Your task to perform on an android device: turn off notifications settings in the gmail app Image 0: 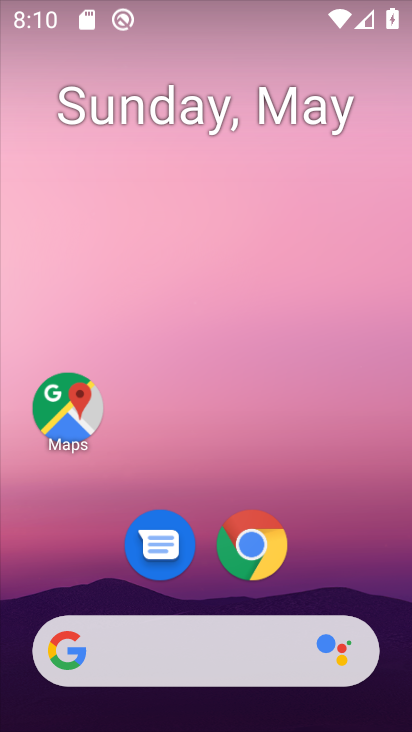
Step 0: drag from (387, 589) to (273, 43)
Your task to perform on an android device: turn off notifications settings in the gmail app Image 1: 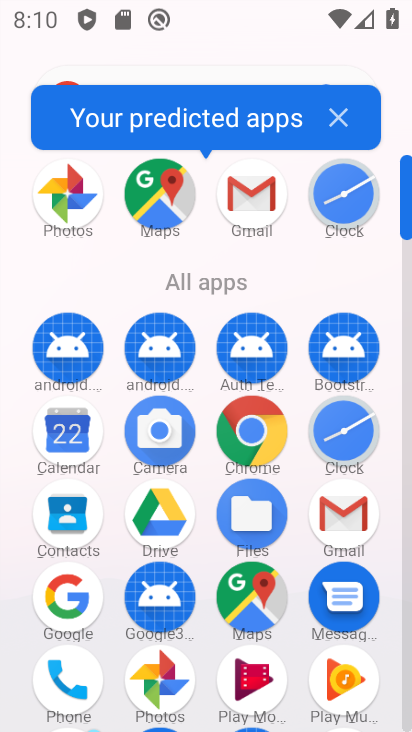
Step 1: click (268, 204)
Your task to perform on an android device: turn off notifications settings in the gmail app Image 2: 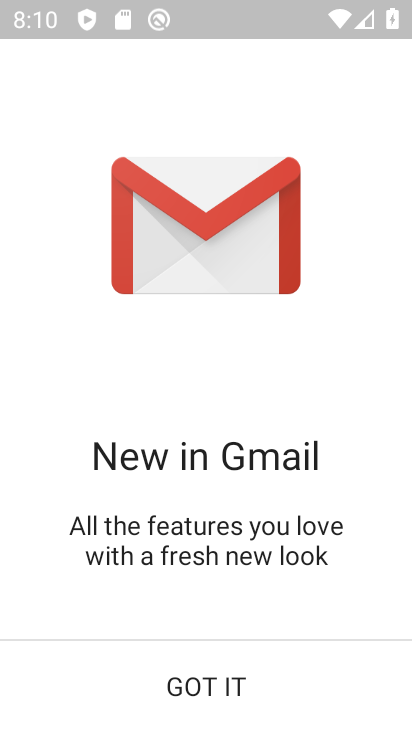
Step 2: click (238, 672)
Your task to perform on an android device: turn off notifications settings in the gmail app Image 3: 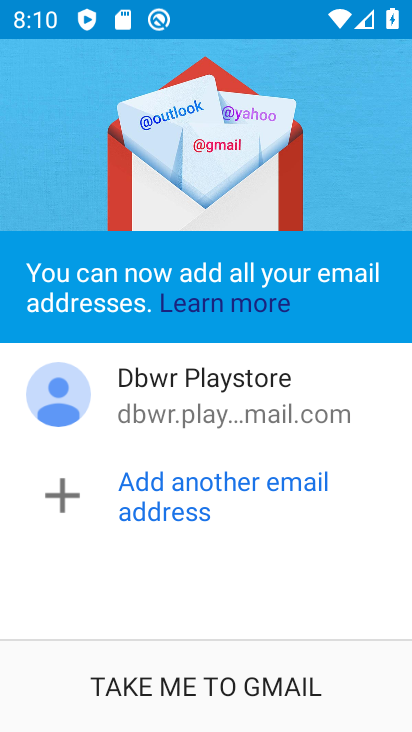
Step 3: click (238, 672)
Your task to perform on an android device: turn off notifications settings in the gmail app Image 4: 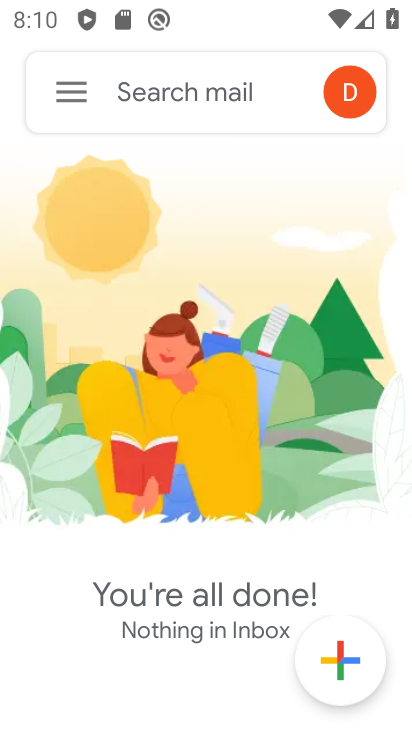
Step 4: click (84, 114)
Your task to perform on an android device: turn off notifications settings in the gmail app Image 5: 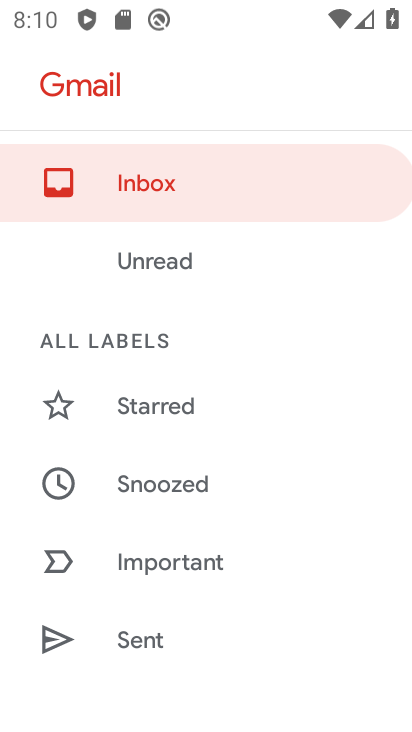
Step 5: drag from (306, 617) to (351, 163)
Your task to perform on an android device: turn off notifications settings in the gmail app Image 6: 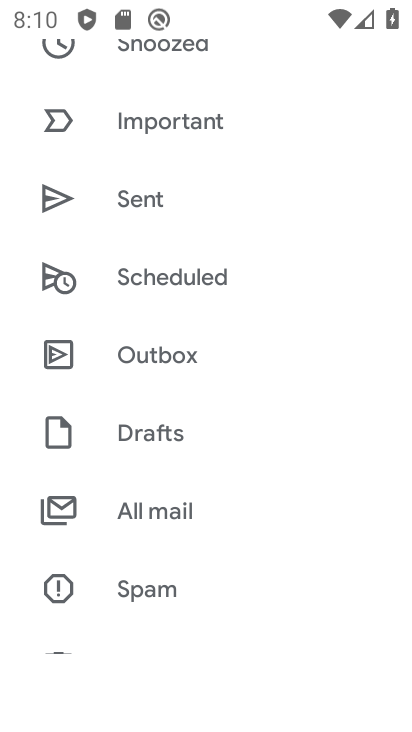
Step 6: drag from (163, 615) to (170, 74)
Your task to perform on an android device: turn off notifications settings in the gmail app Image 7: 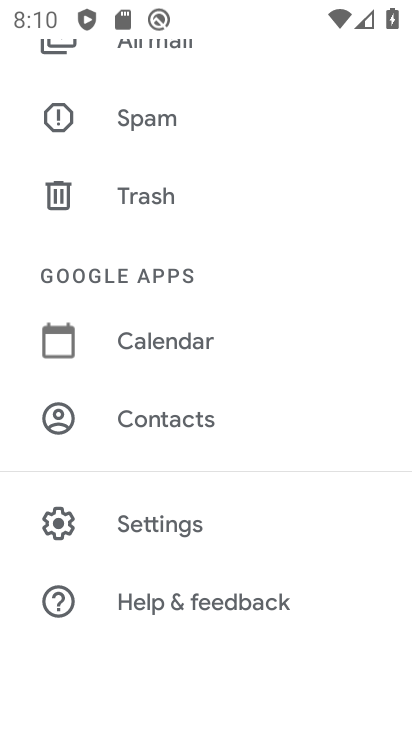
Step 7: click (128, 510)
Your task to perform on an android device: turn off notifications settings in the gmail app Image 8: 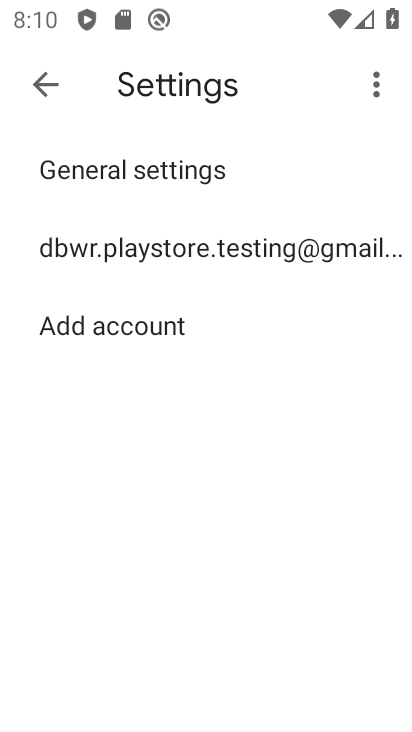
Step 8: click (232, 242)
Your task to perform on an android device: turn off notifications settings in the gmail app Image 9: 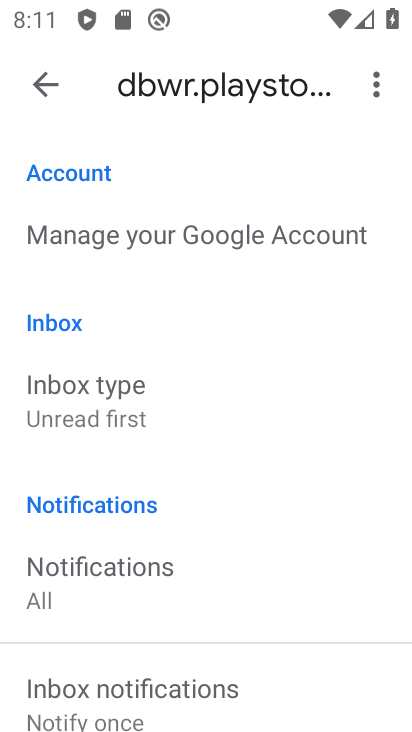
Step 9: drag from (146, 652) to (161, 103)
Your task to perform on an android device: turn off notifications settings in the gmail app Image 10: 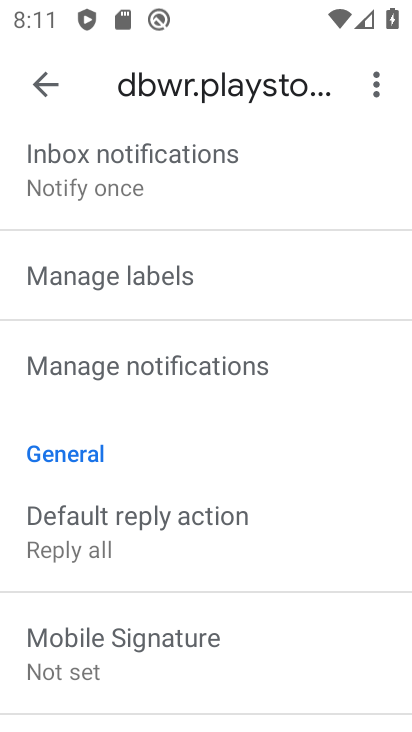
Step 10: click (127, 381)
Your task to perform on an android device: turn off notifications settings in the gmail app Image 11: 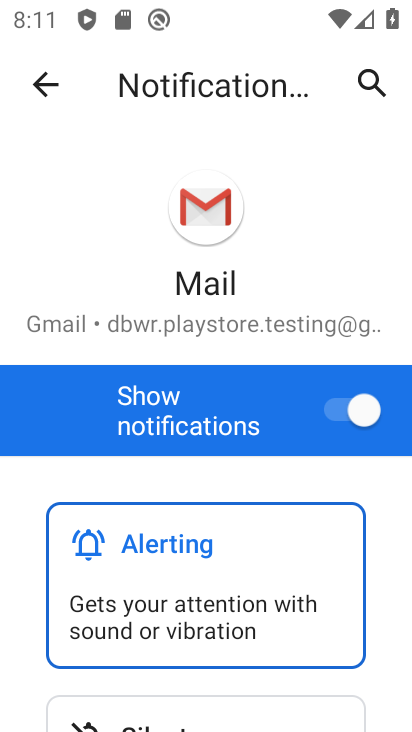
Step 11: drag from (363, 465) to (373, 174)
Your task to perform on an android device: turn off notifications settings in the gmail app Image 12: 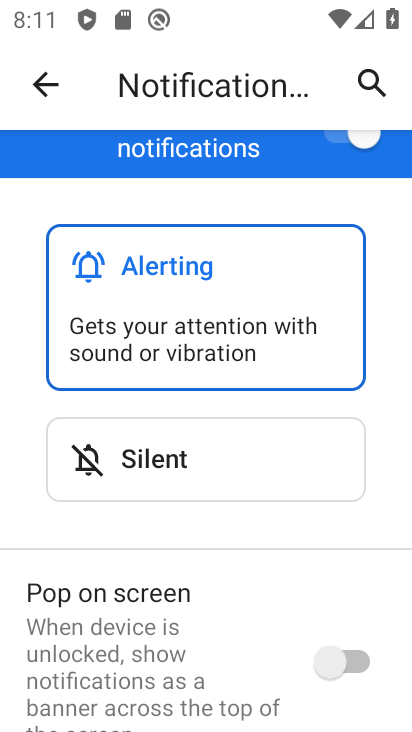
Step 12: click (347, 143)
Your task to perform on an android device: turn off notifications settings in the gmail app Image 13: 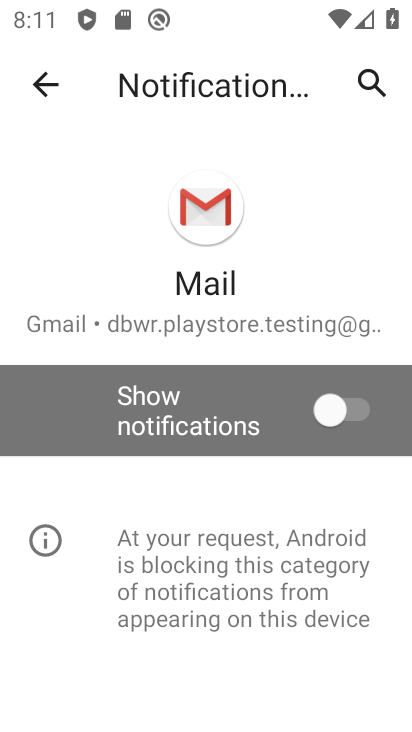
Step 13: task complete